Your task to perform on an android device: Open eBay Image 0: 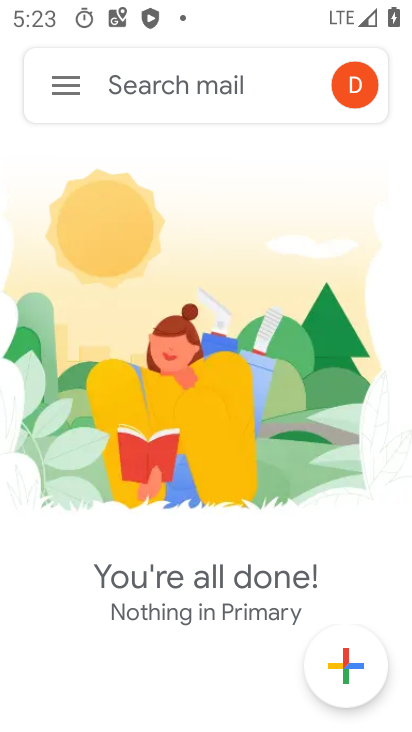
Step 0: press home button
Your task to perform on an android device: Open eBay Image 1: 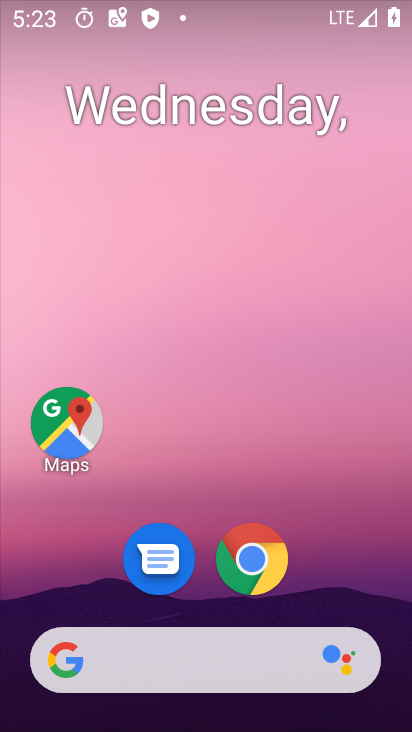
Step 1: click (253, 574)
Your task to perform on an android device: Open eBay Image 2: 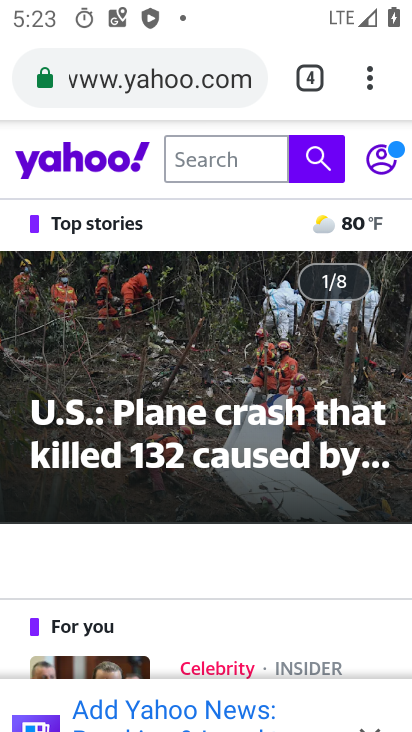
Step 2: click (305, 75)
Your task to perform on an android device: Open eBay Image 3: 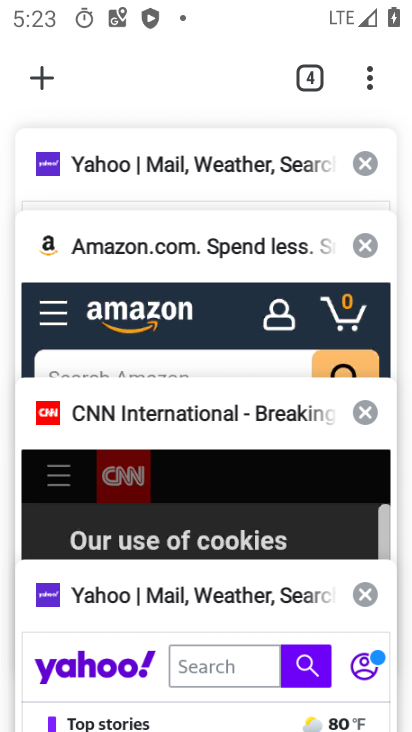
Step 3: click (40, 72)
Your task to perform on an android device: Open eBay Image 4: 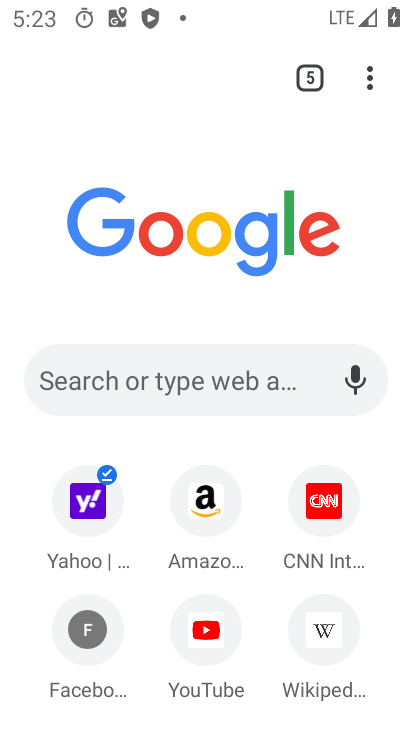
Step 4: click (215, 368)
Your task to perform on an android device: Open eBay Image 5: 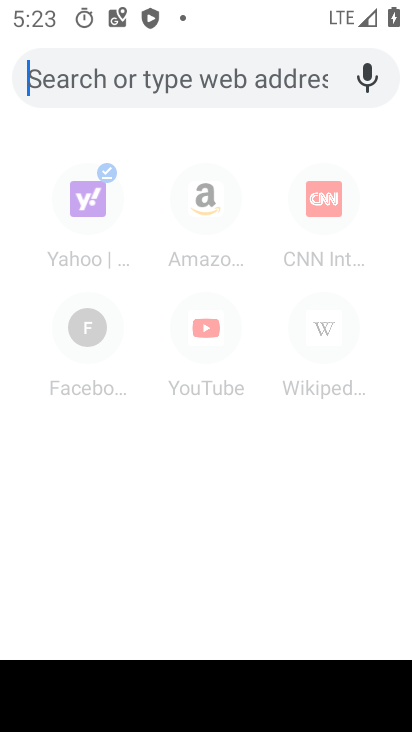
Step 5: type "eBay"
Your task to perform on an android device: Open eBay Image 6: 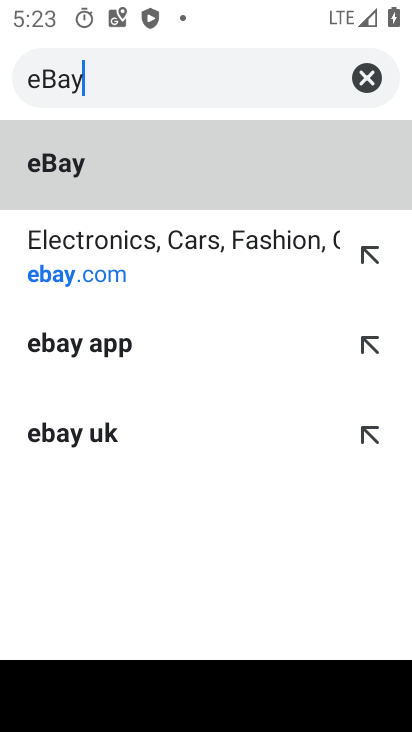
Step 6: click (213, 176)
Your task to perform on an android device: Open eBay Image 7: 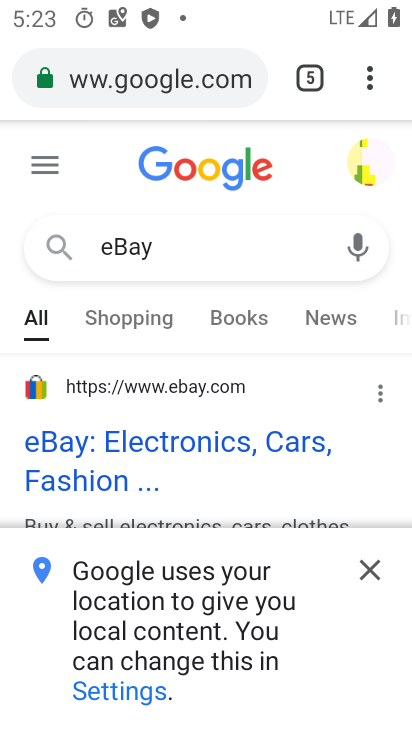
Step 7: click (123, 442)
Your task to perform on an android device: Open eBay Image 8: 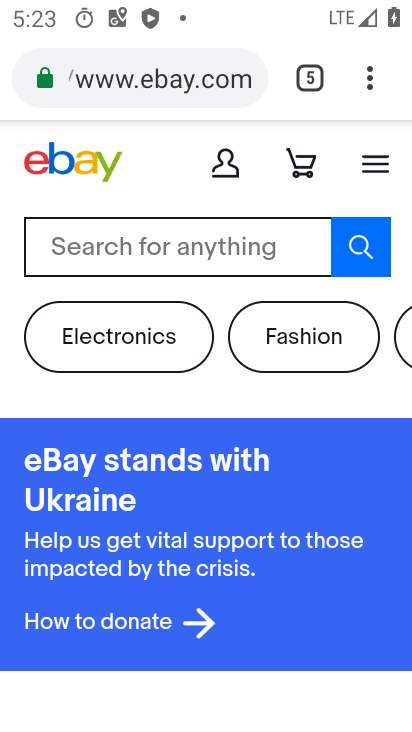
Step 8: task complete